Your task to perform on an android device: Go to Google maps Image 0: 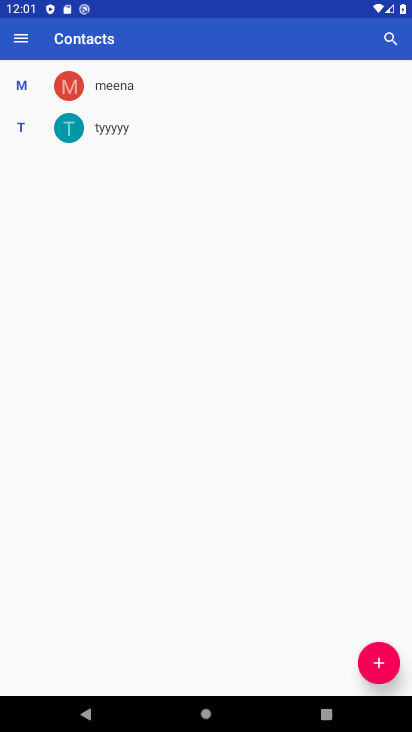
Step 0: press home button
Your task to perform on an android device: Go to Google maps Image 1: 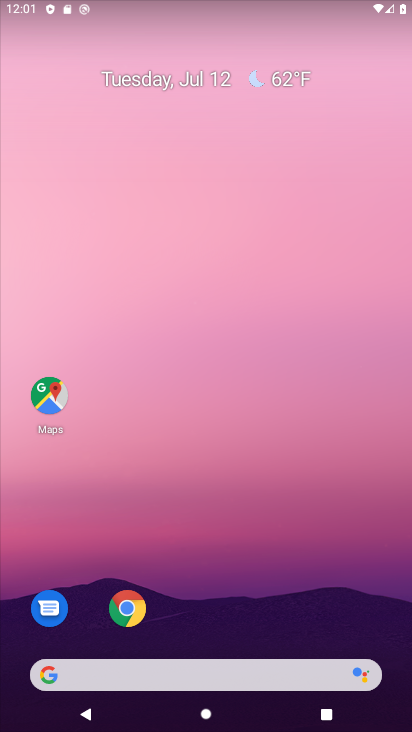
Step 1: drag from (192, 557) to (224, 3)
Your task to perform on an android device: Go to Google maps Image 2: 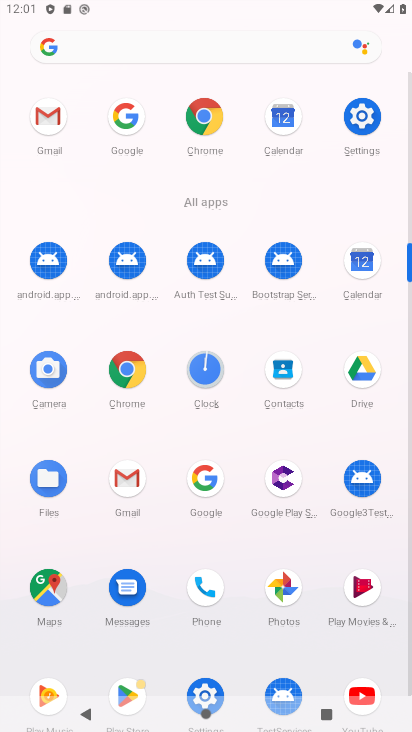
Step 2: click (49, 587)
Your task to perform on an android device: Go to Google maps Image 3: 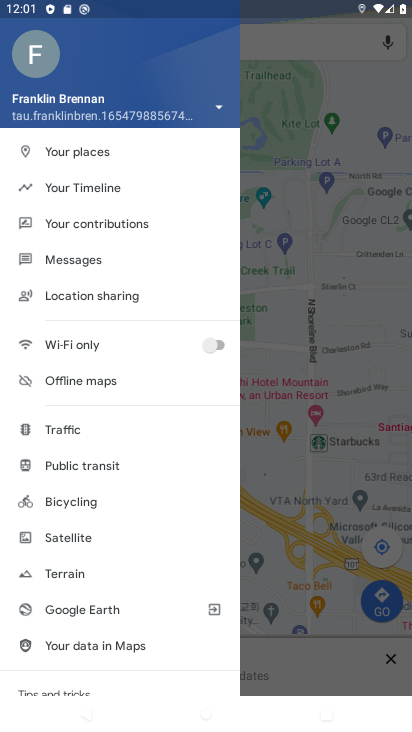
Step 3: task complete